Your task to perform on an android device: turn on bluetooth scan Image 0: 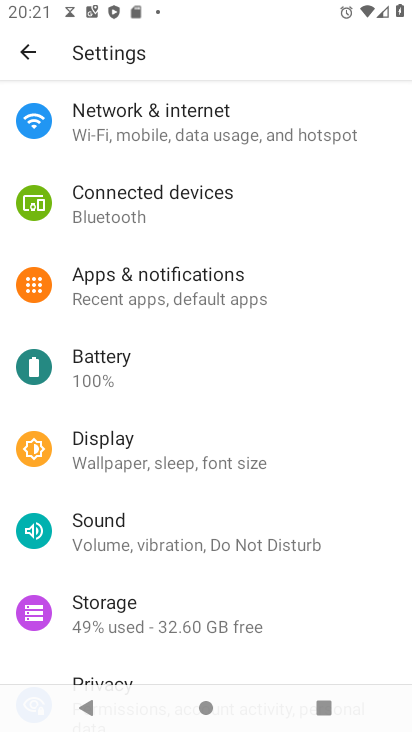
Step 0: drag from (221, 122) to (243, 696)
Your task to perform on an android device: turn on bluetooth scan Image 1: 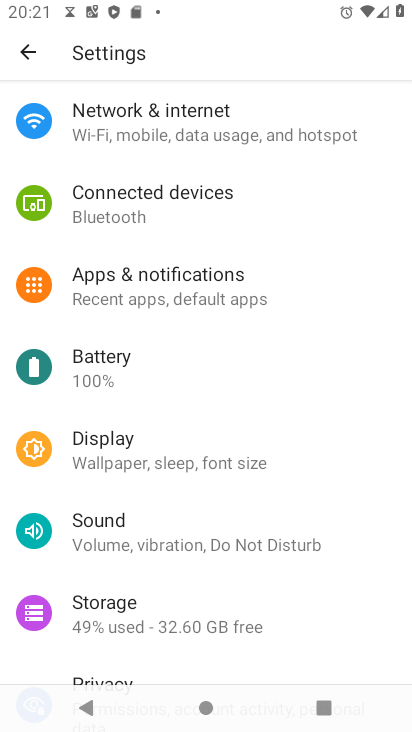
Step 1: click (23, 49)
Your task to perform on an android device: turn on bluetooth scan Image 2: 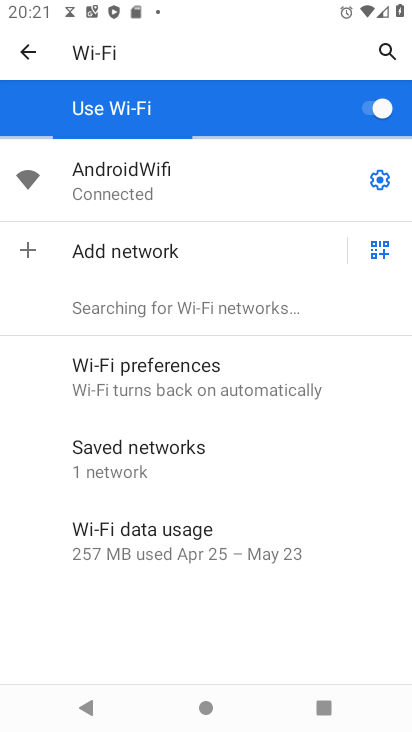
Step 2: click (28, 46)
Your task to perform on an android device: turn on bluetooth scan Image 3: 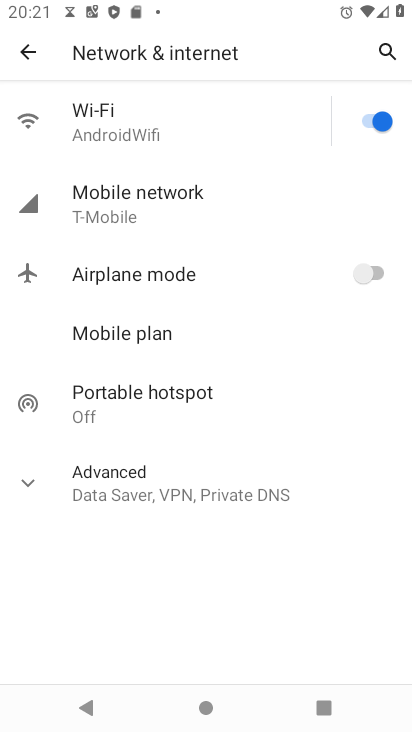
Step 3: click (15, 56)
Your task to perform on an android device: turn on bluetooth scan Image 4: 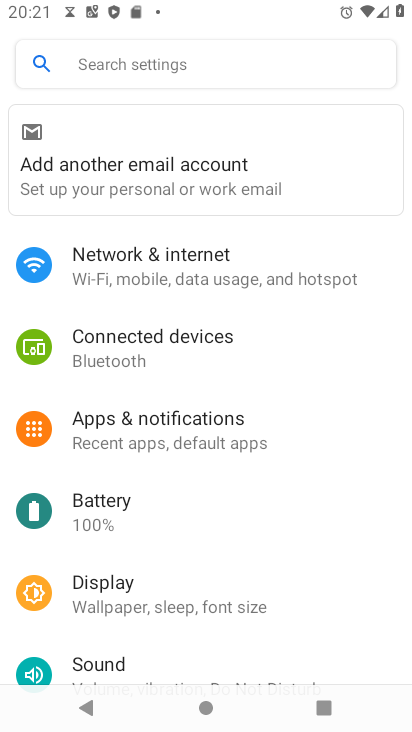
Step 4: click (157, 54)
Your task to perform on an android device: turn on bluetooth scan Image 5: 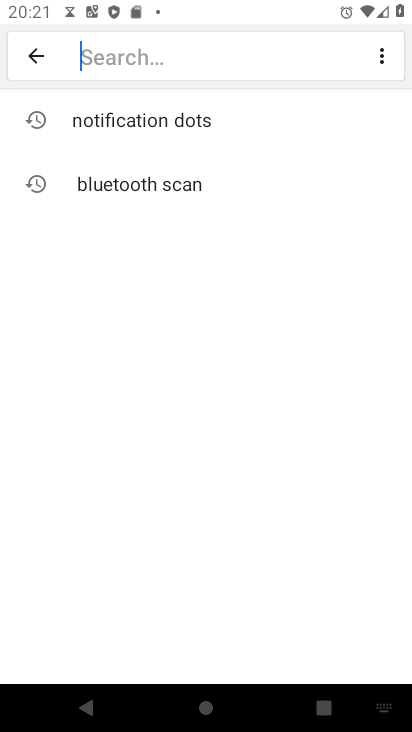
Step 5: type " bluetooth scan"
Your task to perform on an android device: turn on bluetooth scan Image 6: 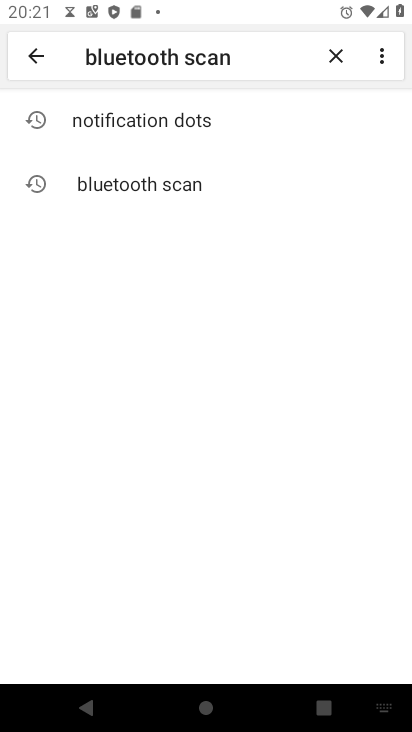
Step 6: click (174, 120)
Your task to perform on an android device: turn on bluetooth scan Image 7: 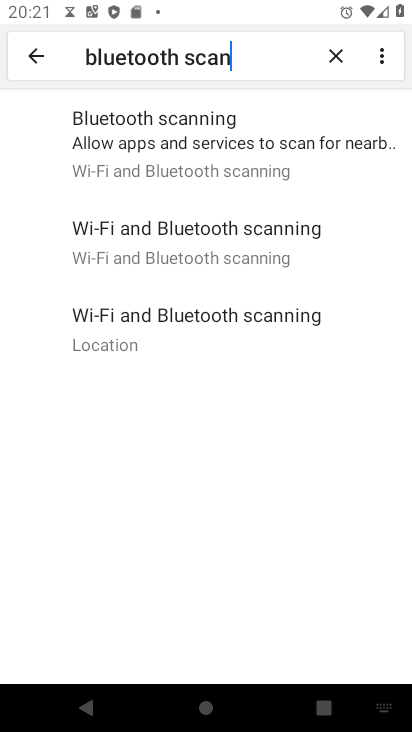
Step 7: click (174, 120)
Your task to perform on an android device: turn on bluetooth scan Image 8: 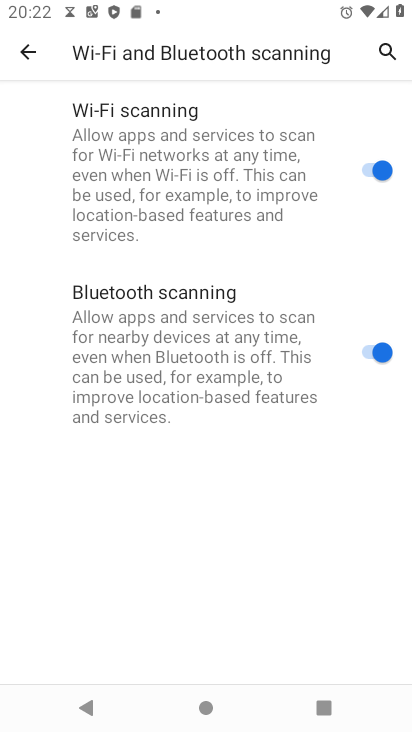
Step 8: task complete